Your task to perform on an android device: Search for Italian restaurants on Maps Image 0: 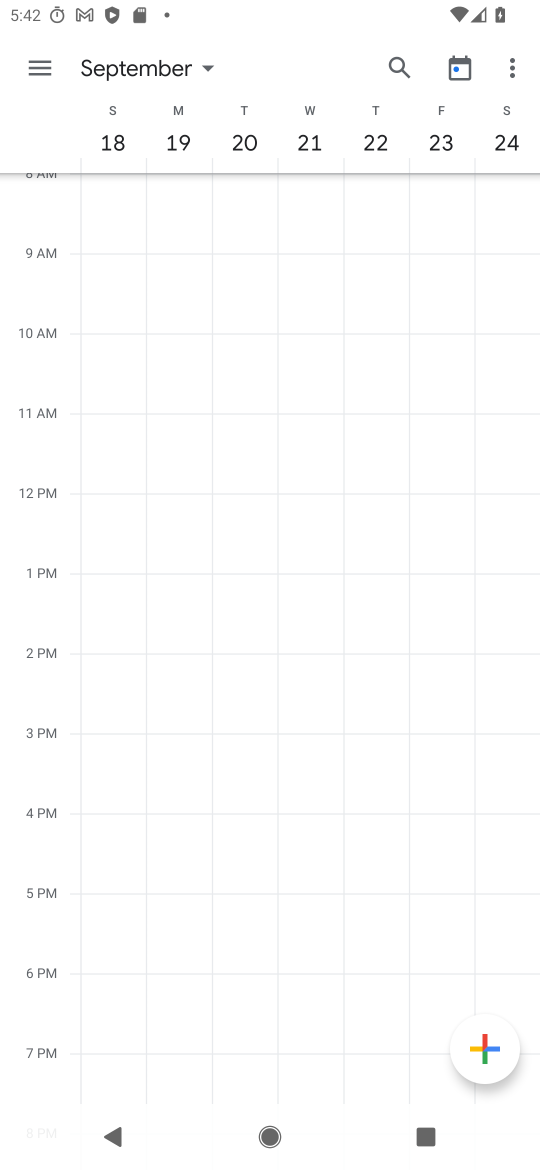
Step 0: press home button
Your task to perform on an android device: Search for Italian restaurants on Maps Image 1: 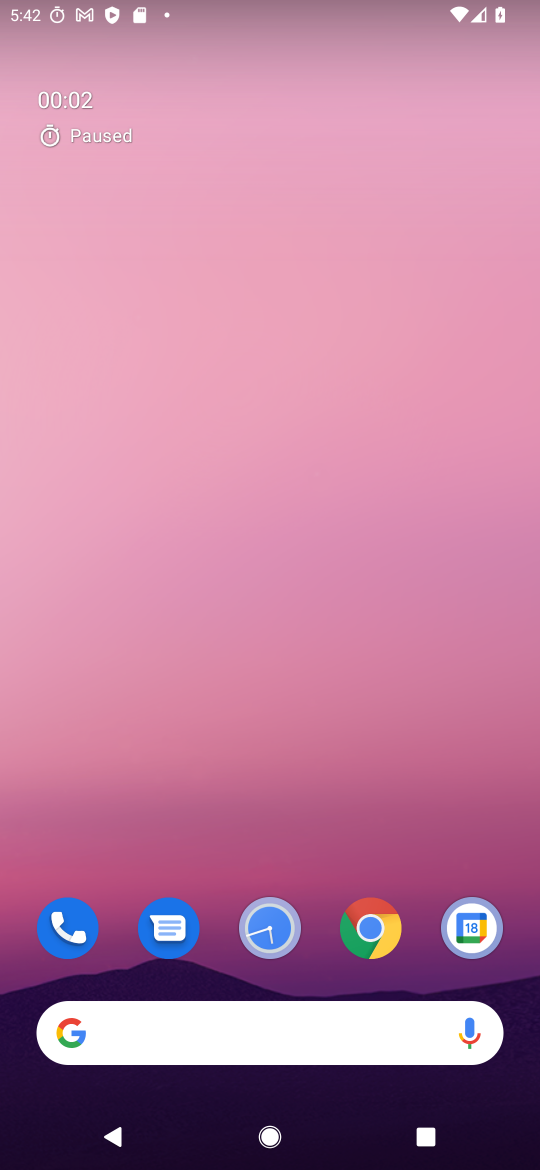
Step 1: drag from (272, 810) to (366, 166)
Your task to perform on an android device: Search for Italian restaurants on Maps Image 2: 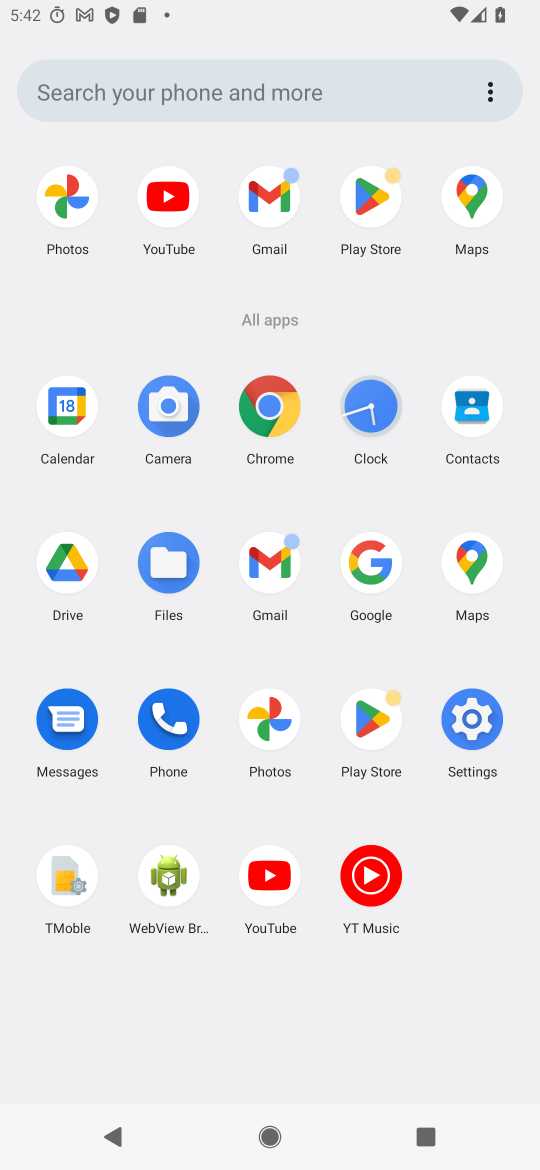
Step 2: click (480, 560)
Your task to perform on an android device: Search for Italian restaurants on Maps Image 3: 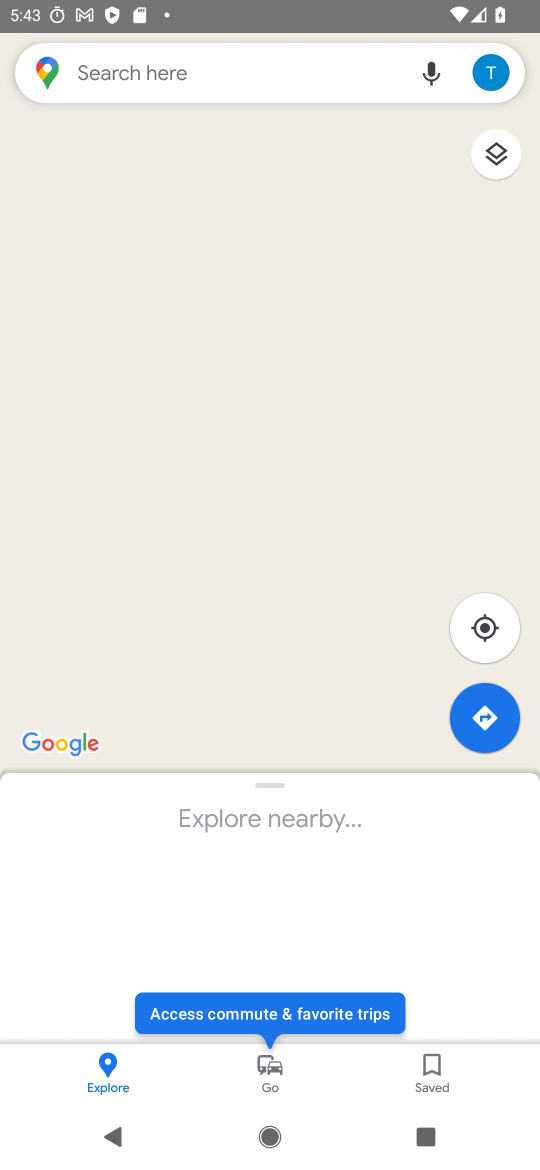
Step 3: click (264, 83)
Your task to perform on an android device: Search for Italian restaurants on Maps Image 4: 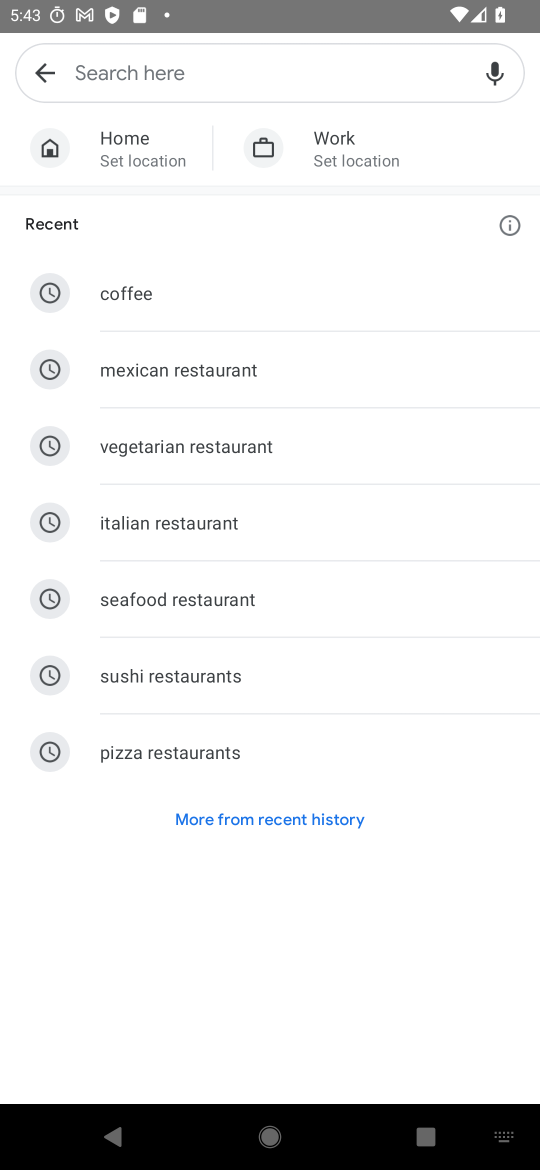
Step 4: type "Italian restaurants"
Your task to perform on an android device: Search for Italian restaurants on Maps Image 5: 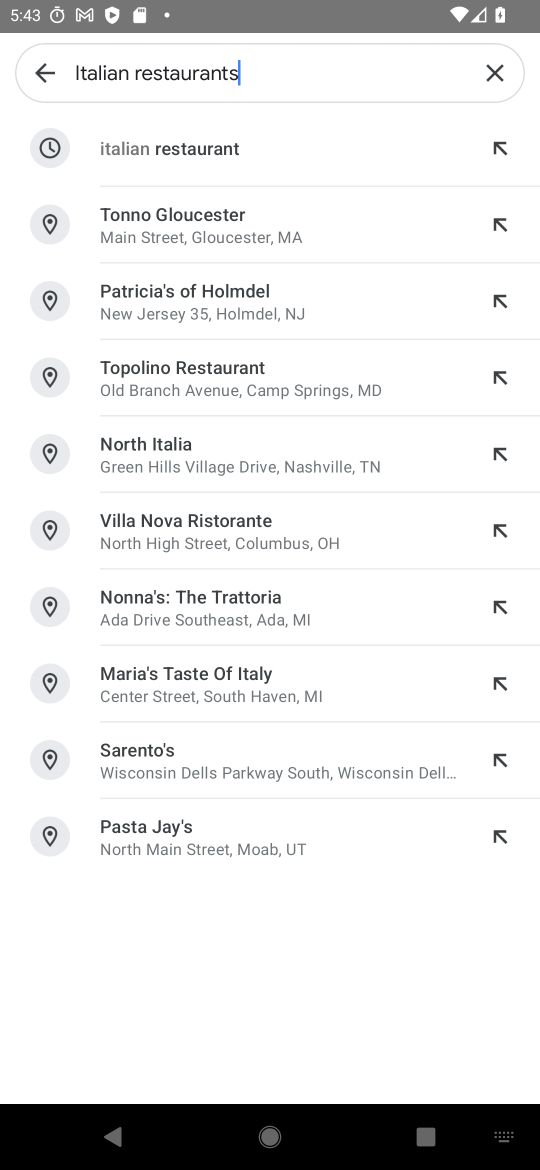
Step 5: press enter
Your task to perform on an android device: Search for Italian restaurants on Maps Image 6: 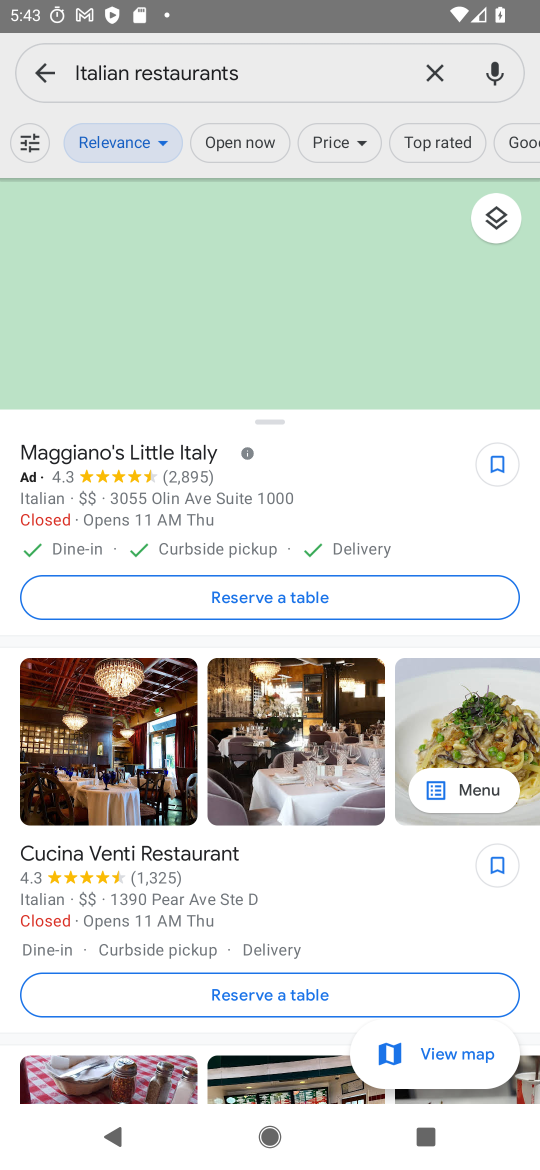
Step 6: task complete